Your task to perform on an android device: Toggle the flashlight Image 0: 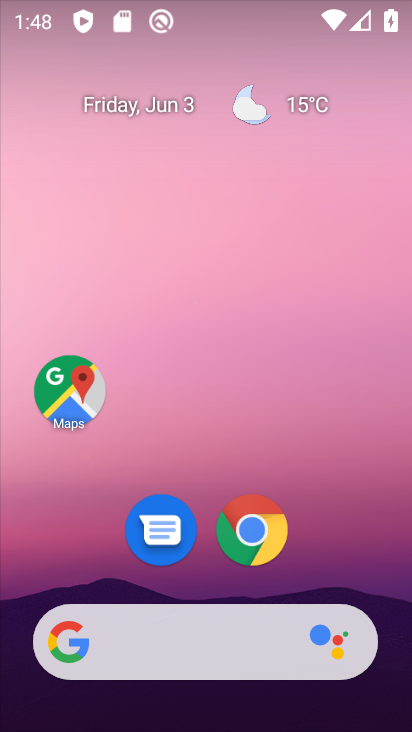
Step 0: drag from (183, 602) to (139, 135)
Your task to perform on an android device: Toggle the flashlight Image 1: 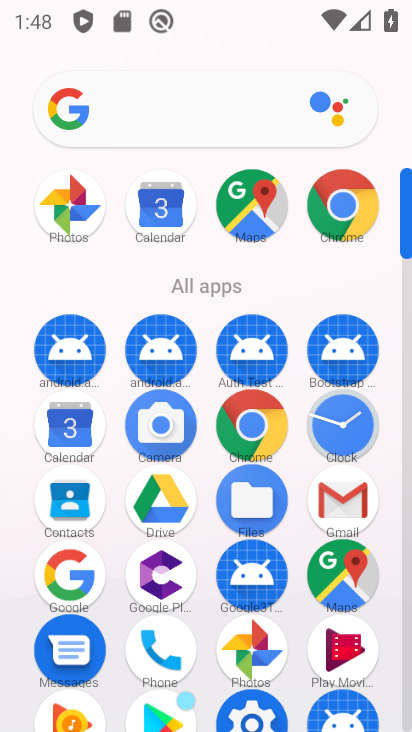
Step 1: task complete